Your task to perform on an android device: toggle sleep mode Image 0: 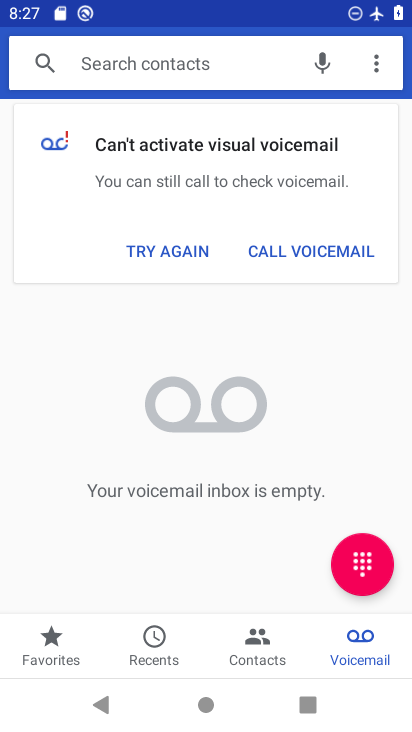
Step 0: press home button
Your task to perform on an android device: toggle sleep mode Image 1: 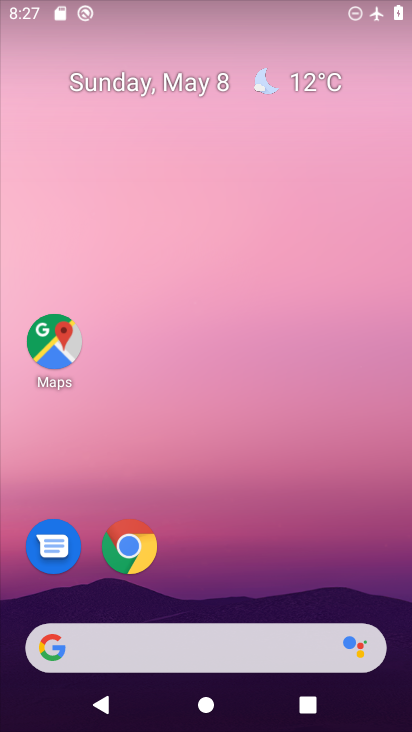
Step 1: drag from (260, 559) to (299, 28)
Your task to perform on an android device: toggle sleep mode Image 2: 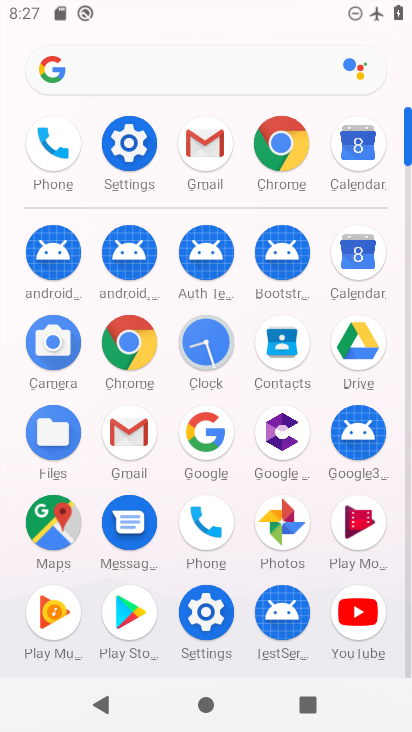
Step 2: click (130, 126)
Your task to perform on an android device: toggle sleep mode Image 3: 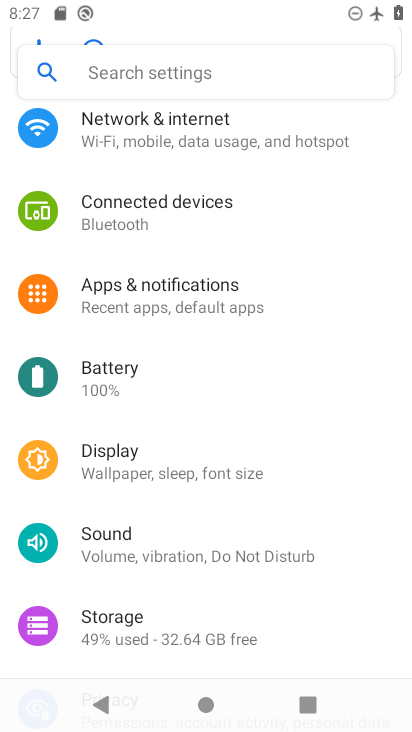
Step 3: click (231, 464)
Your task to perform on an android device: toggle sleep mode Image 4: 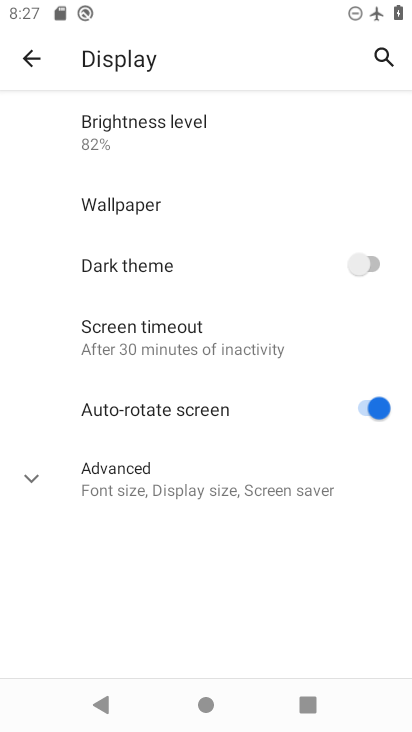
Step 4: click (28, 479)
Your task to perform on an android device: toggle sleep mode Image 5: 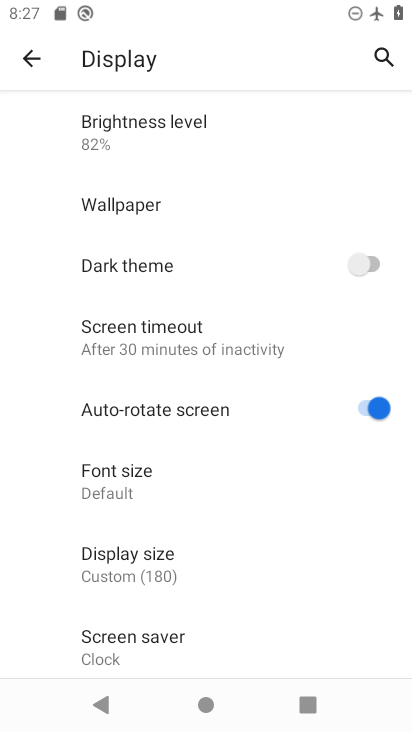
Step 5: task complete